Your task to perform on an android device: See recent photos Image 0: 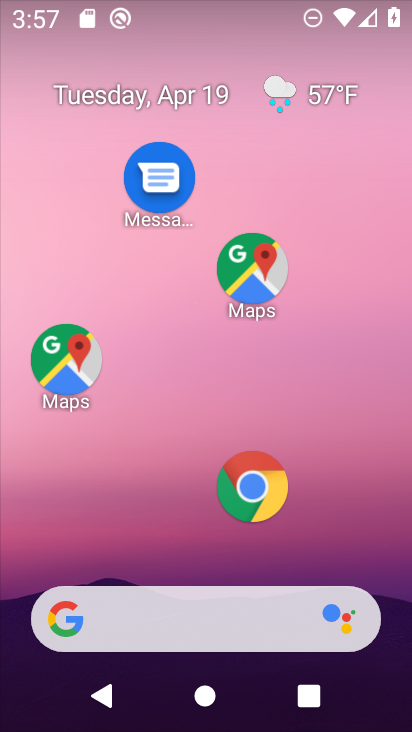
Step 0: drag from (84, 519) to (193, 150)
Your task to perform on an android device: See recent photos Image 1: 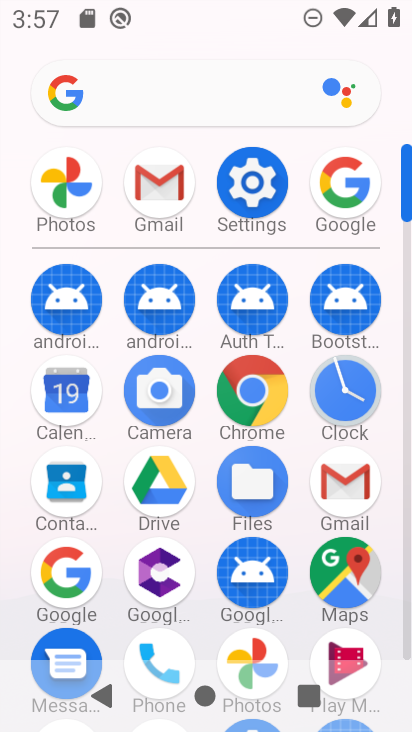
Step 1: click (83, 193)
Your task to perform on an android device: See recent photos Image 2: 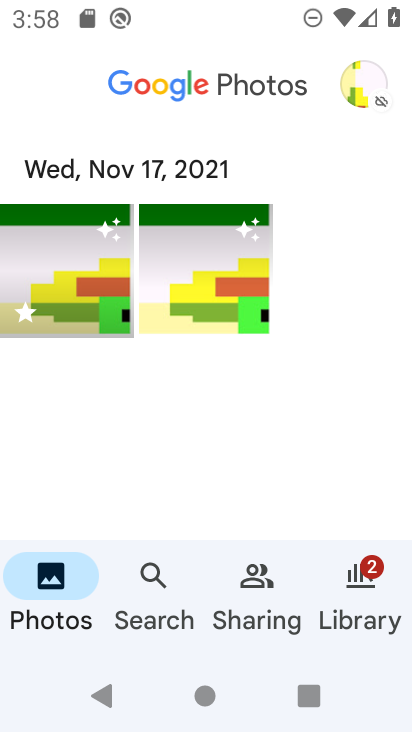
Step 2: click (63, 268)
Your task to perform on an android device: See recent photos Image 3: 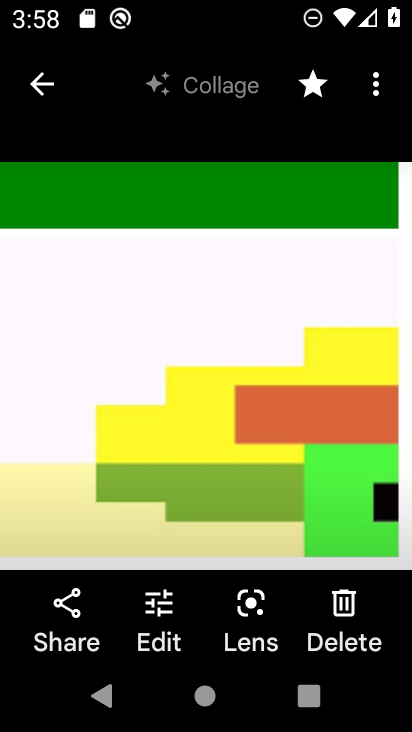
Step 3: task complete